Your task to perform on an android device: Open Chrome and go to settings Image 0: 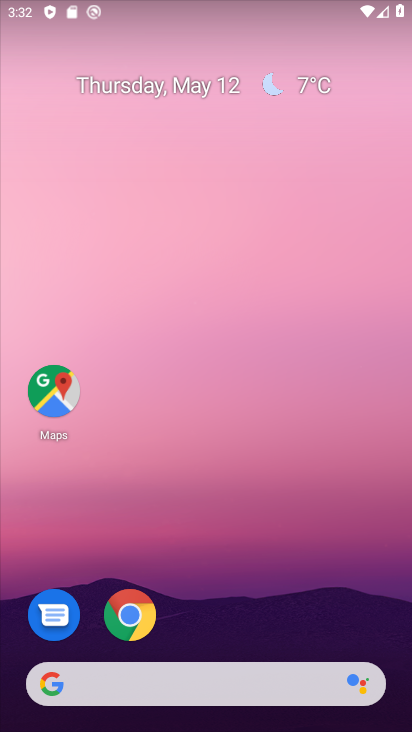
Step 0: click (139, 608)
Your task to perform on an android device: Open Chrome and go to settings Image 1: 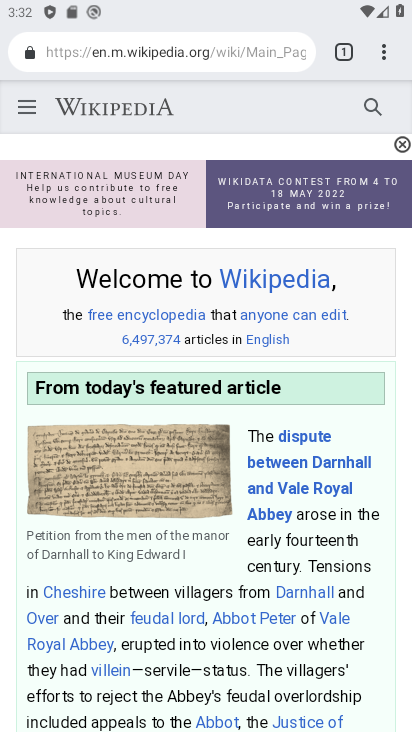
Step 1: click (383, 45)
Your task to perform on an android device: Open Chrome and go to settings Image 2: 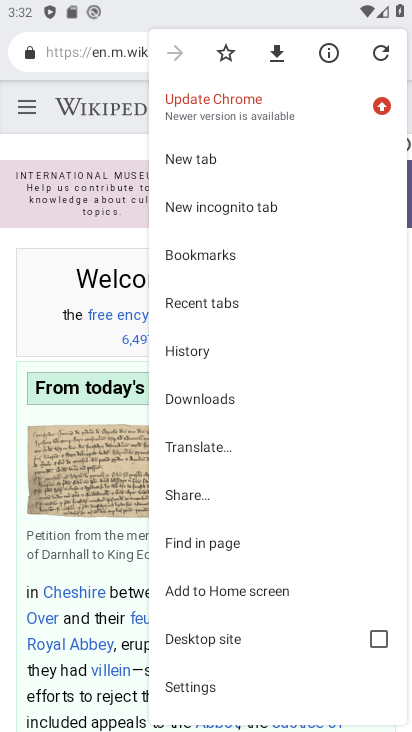
Step 2: click (214, 679)
Your task to perform on an android device: Open Chrome and go to settings Image 3: 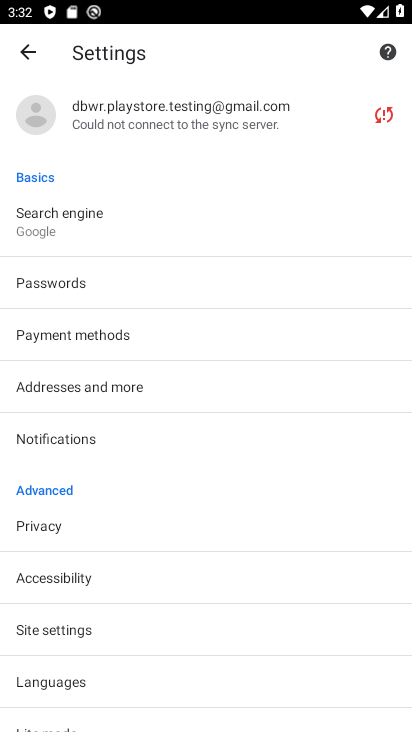
Step 3: task complete